Your task to perform on an android device: When is my next appointment? Image 0: 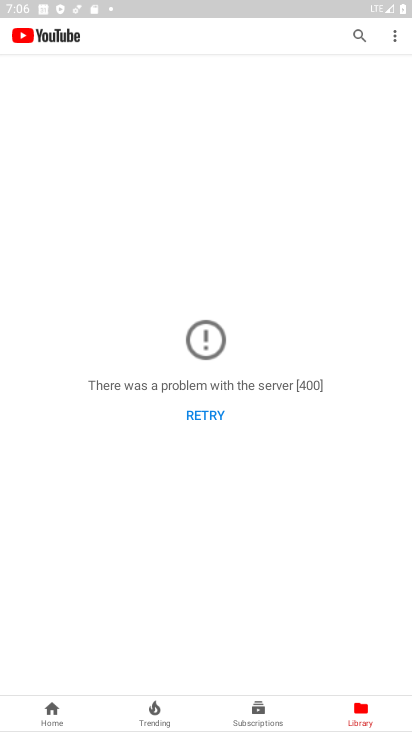
Step 0: press home button
Your task to perform on an android device: When is my next appointment? Image 1: 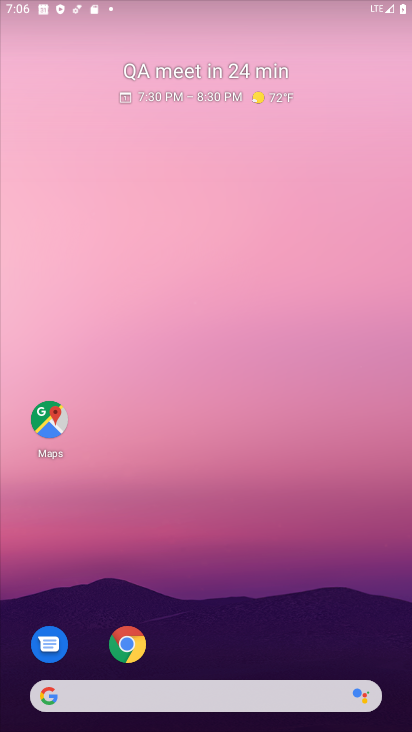
Step 1: drag from (142, 720) to (174, 315)
Your task to perform on an android device: When is my next appointment? Image 2: 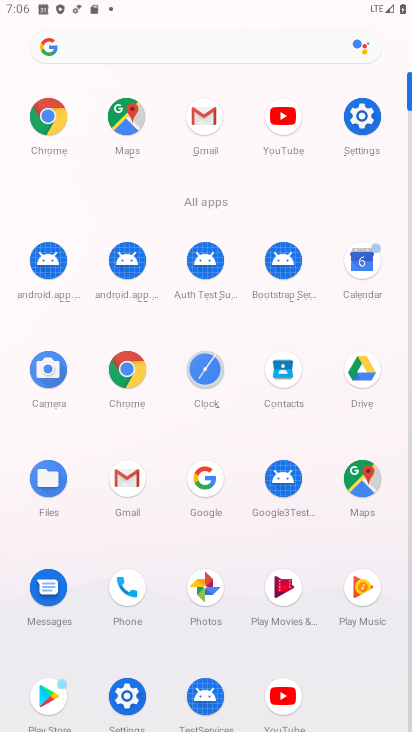
Step 2: click (360, 267)
Your task to perform on an android device: When is my next appointment? Image 3: 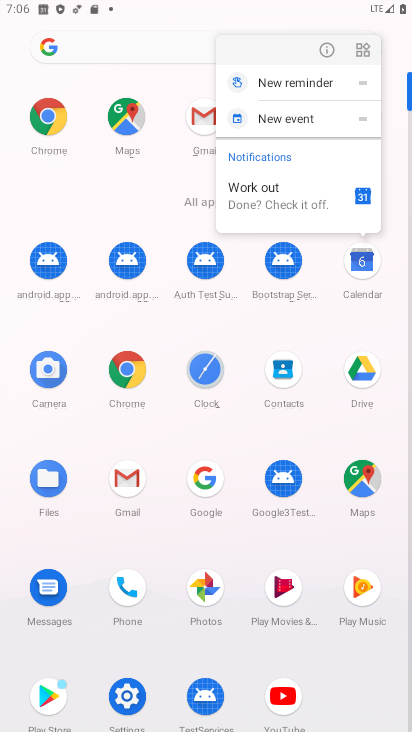
Step 3: click (353, 255)
Your task to perform on an android device: When is my next appointment? Image 4: 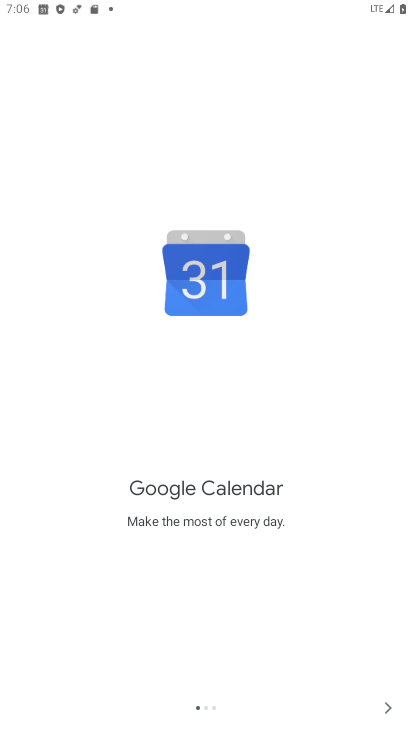
Step 4: click (375, 711)
Your task to perform on an android device: When is my next appointment? Image 5: 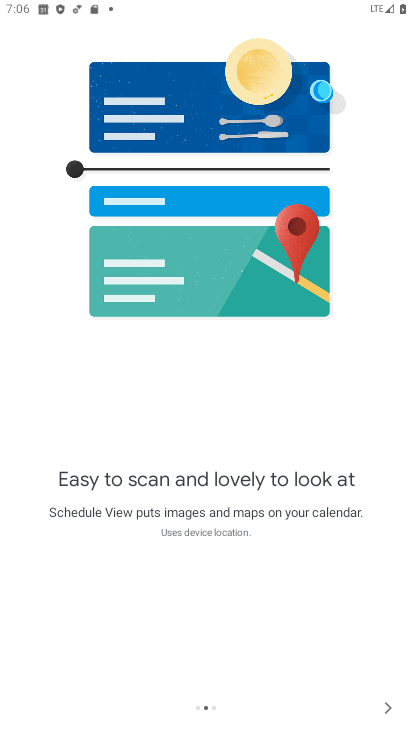
Step 5: click (374, 719)
Your task to perform on an android device: When is my next appointment? Image 6: 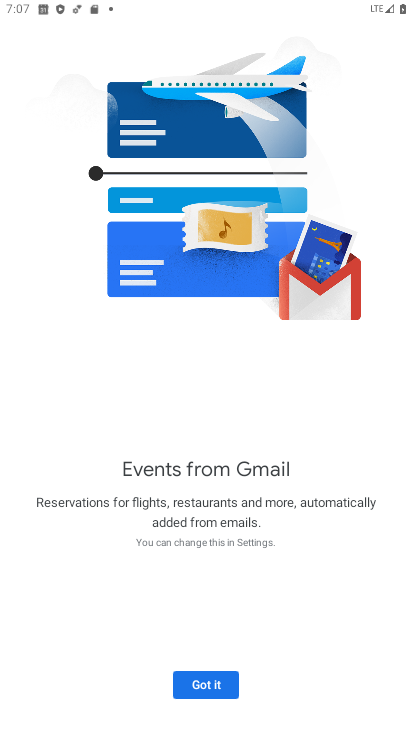
Step 6: click (227, 672)
Your task to perform on an android device: When is my next appointment? Image 7: 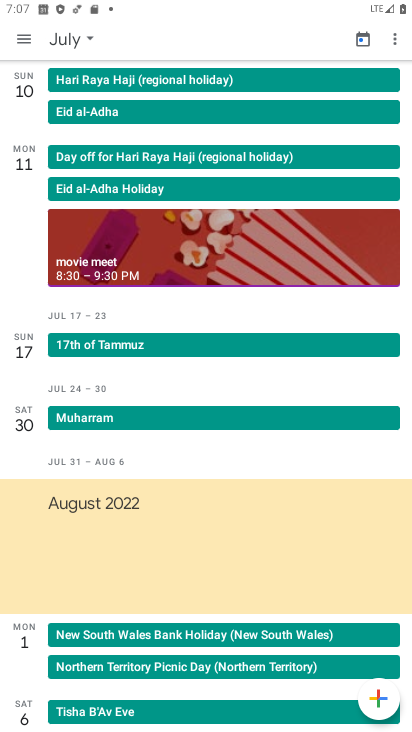
Step 7: click (20, 33)
Your task to perform on an android device: When is my next appointment? Image 8: 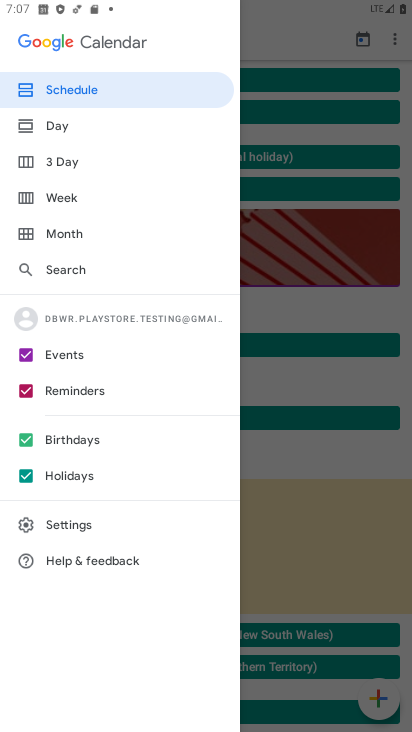
Step 8: click (65, 241)
Your task to perform on an android device: When is my next appointment? Image 9: 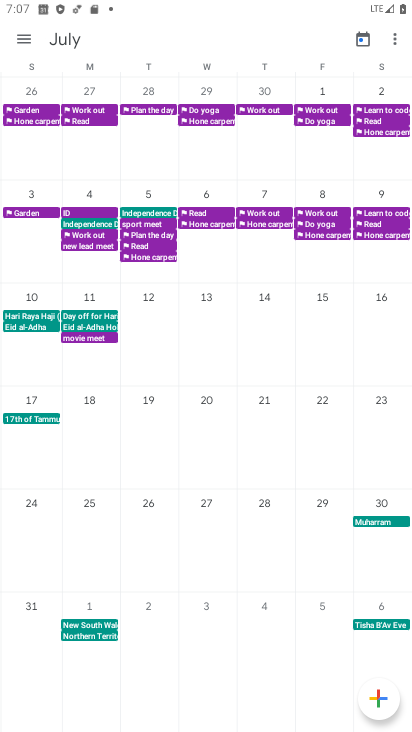
Step 9: drag from (87, 462) to (374, 179)
Your task to perform on an android device: When is my next appointment? Image 10: 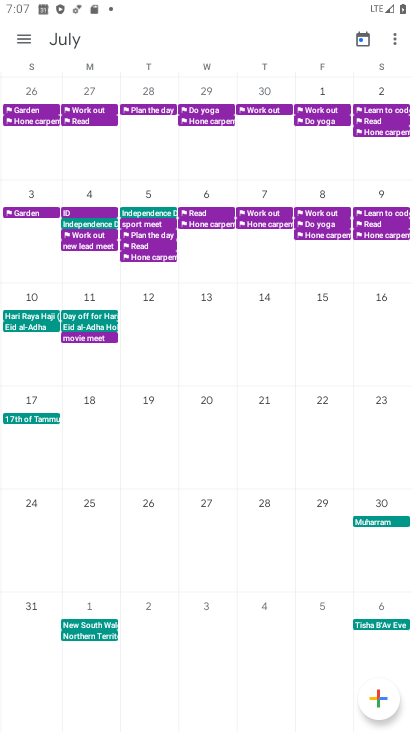
Step 10: drag from (27, 296) to (408, 218)
Your task to perform on an android device: When is my next appointment? Image 11: 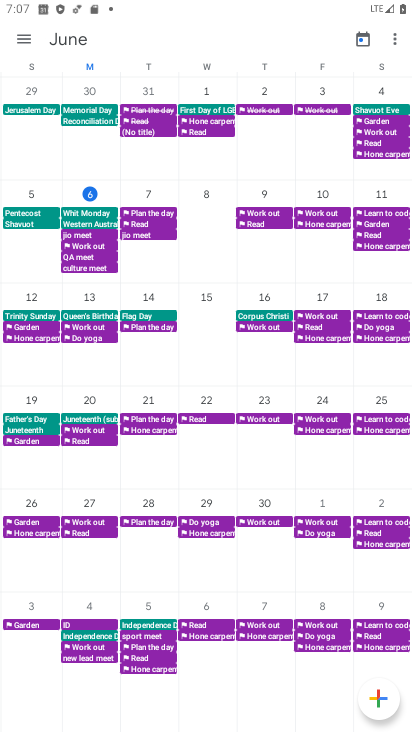
Step 11: click (101, 181)
Your task to perform on an android device: When is my next appointment? Image 12: 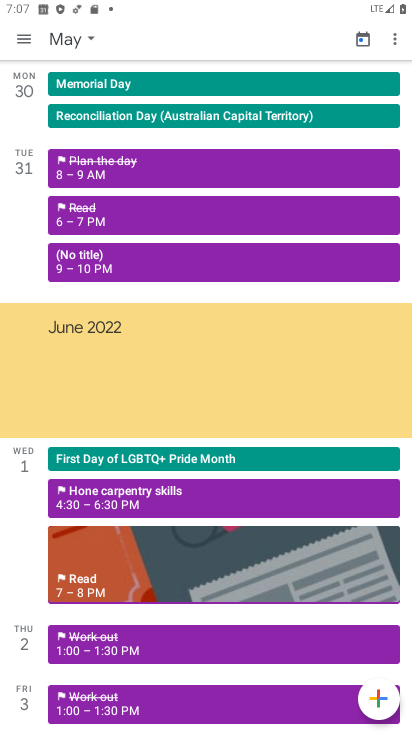
Step 12: task complete